Your task to perform on an android device: turn off sleep mode Image 0: 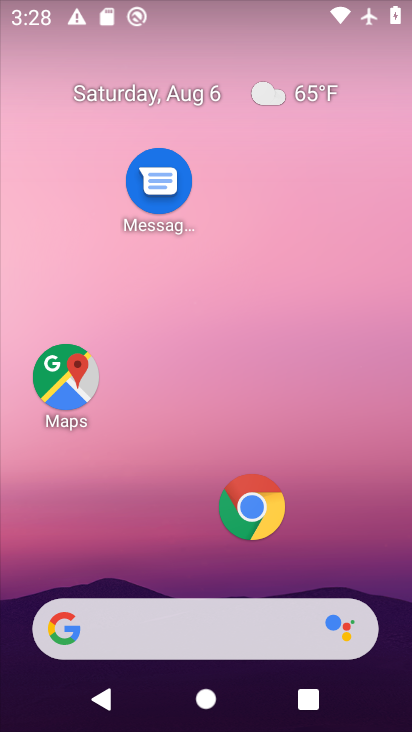
Step 0: drag from (157, 516) to (175, 0)
Your task to perform on an android device: turn off sleep mode Image 1: 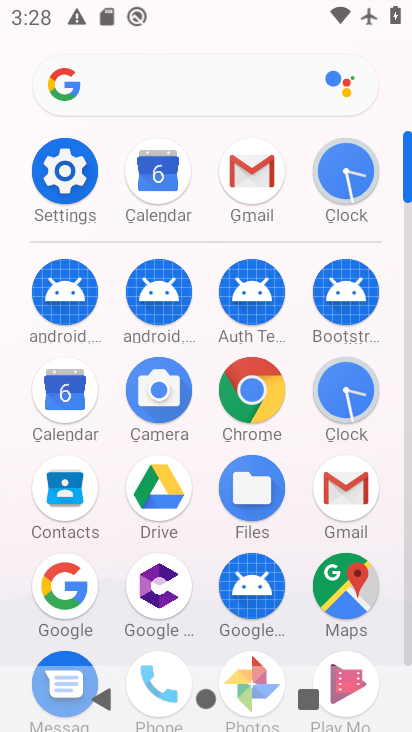
Step 1: click (70, 203)
Your task to perform on an android device: turn off sleep mode Image 2: 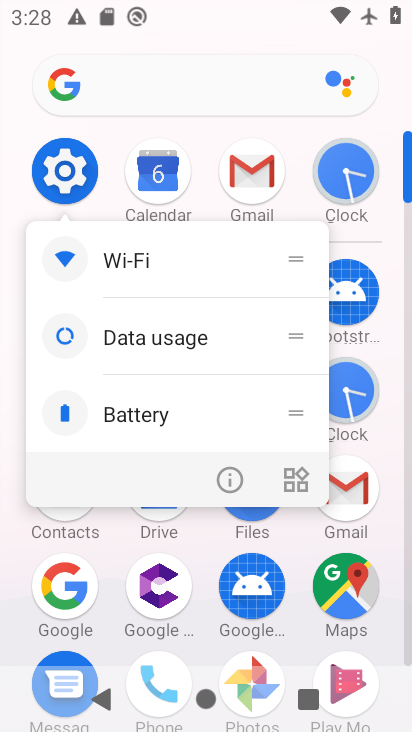
Step 2: click (73, 166)
Your task to perform on an android device: turn off sleep mode Image 3: 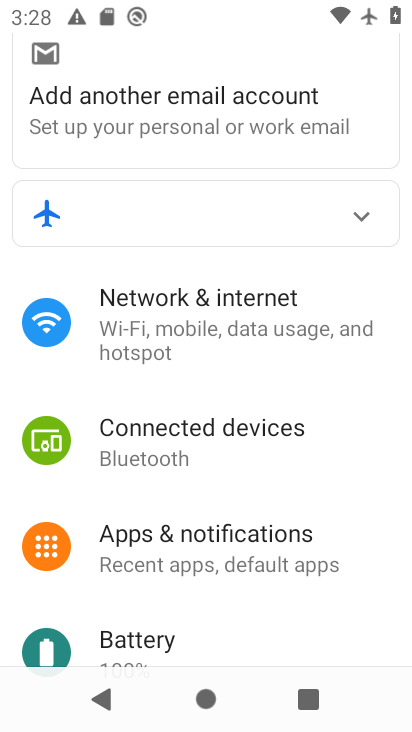
Step 3: drag from (191, 94) to (195, 449)
Your task to perform on an android device: turn off sleep mode Image 4: 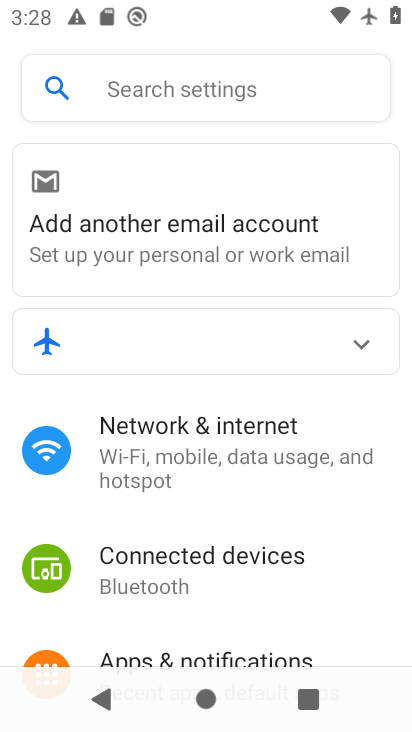
Step 4: click (199, 83)
Your task to perform on an android device: turn off sleep mode Image 5: 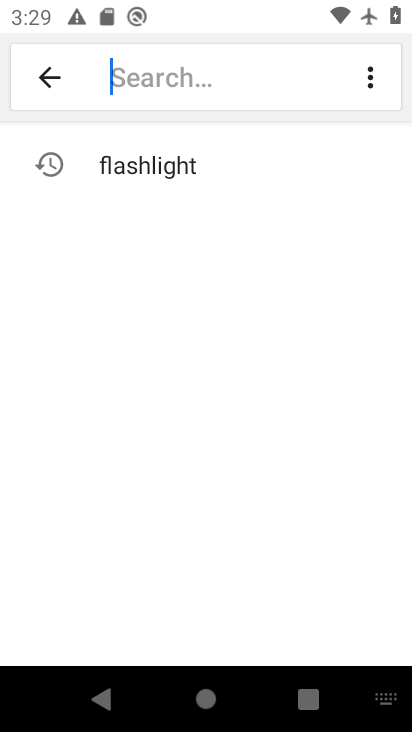
Step 5: type "sleep mode"
Your task to perform on an android device: turn off sleep mode Image 6: 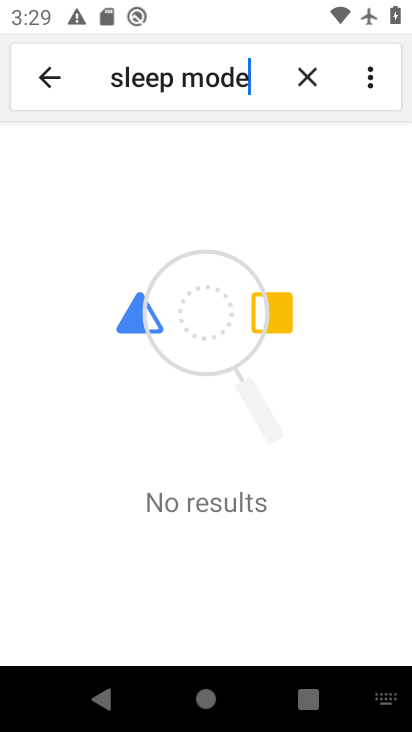
Step 6: click (320, 403)
Your task to perform on an android device: turn off sleep mode Image 7: 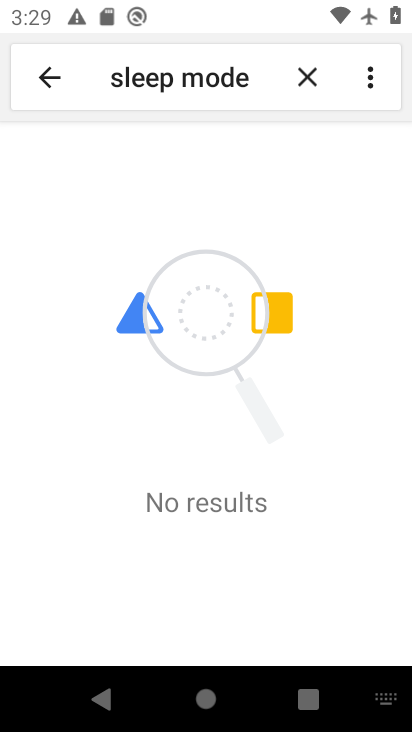
Step 7: task complete